Your task to perform on an android device: choose inbox layout in the gmail app Image 0: 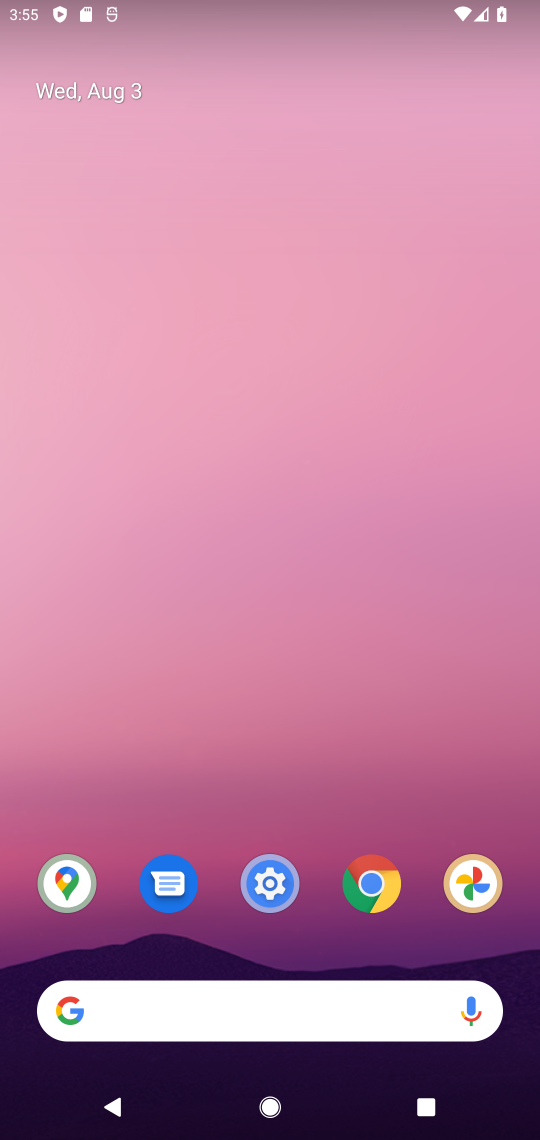
Step 0: drag from (202, 861) to (214, 423)
Your task to perform on an android device: choose inbox layout in the gmail app Image 1: 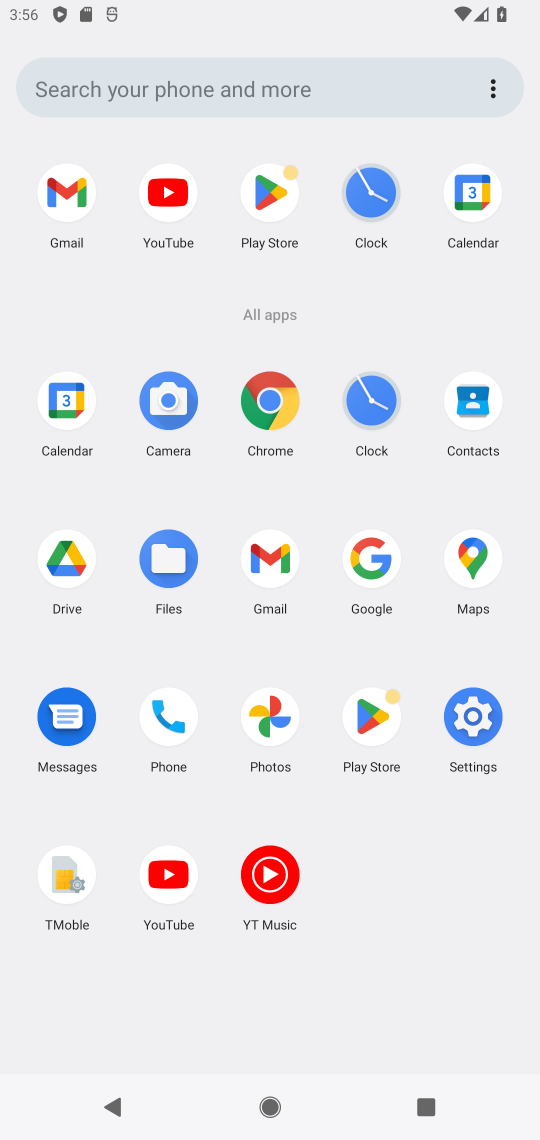
Step 1: click (277, 561)
Your task to perform on an android device: choose inbox layout in the gmail app Image 2: 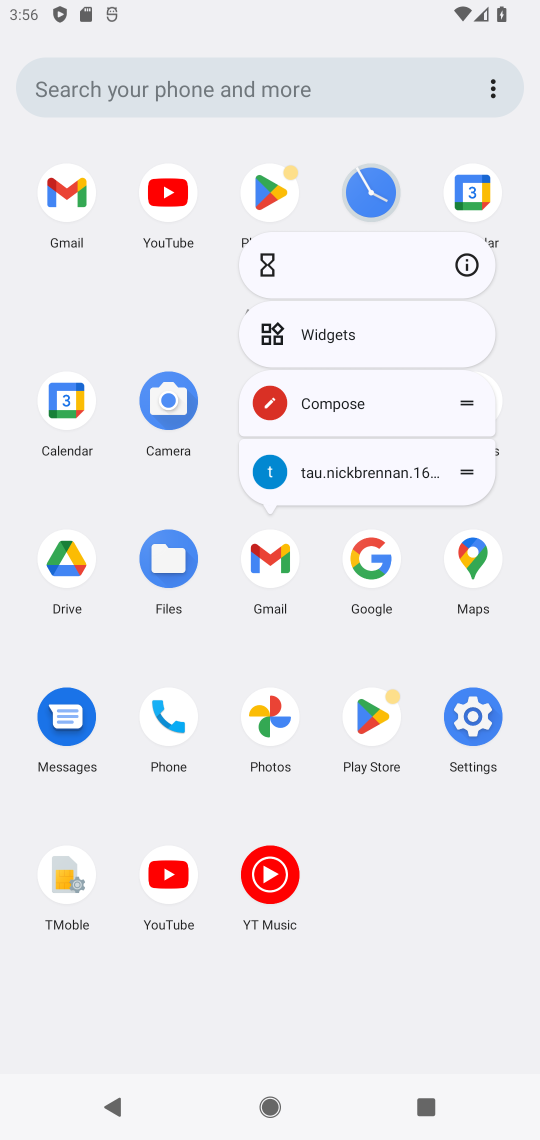
Step 2: click (264, 580)
Your task to perform on an android device: choose inbox layout in the gmail app Image 3: 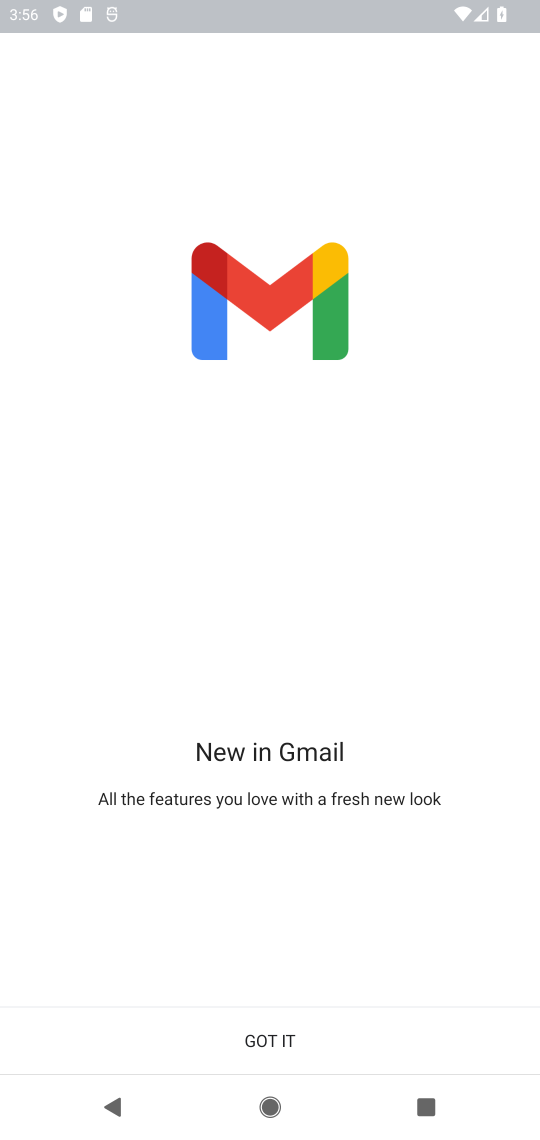
Step 3: click (289, 1038)
Your task to perform on an android device: choose inbox layout in the gmail app Image 4: 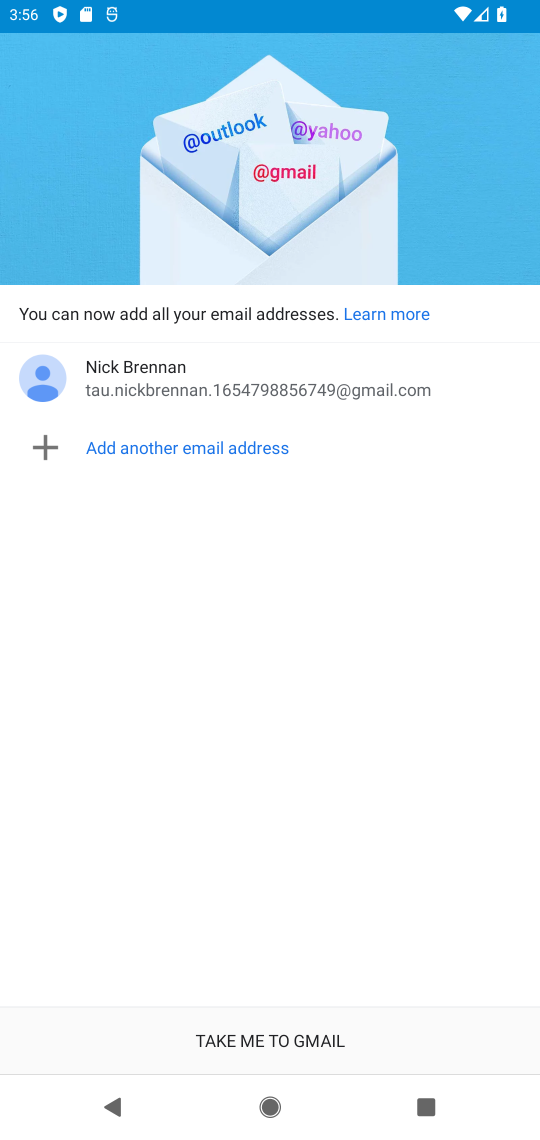
Step 4: click (262, 1033)
Your task to perform on an android device: choose inbox layout in the gmail app Image 5: 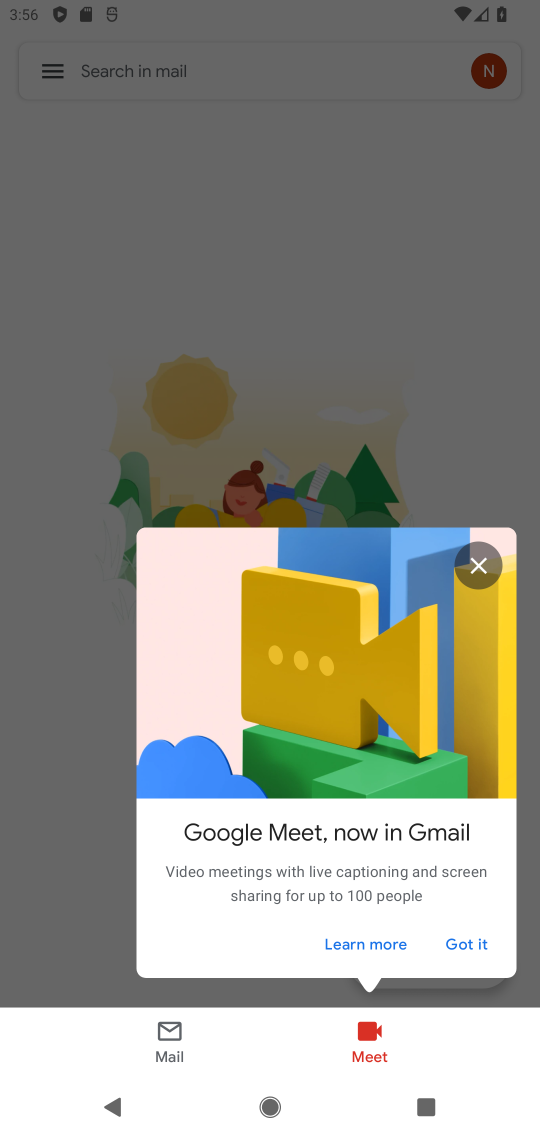
Step 5: click (473, 564)
Your task to perform on an android device: choose inbox layout in the gmail app Image 6: 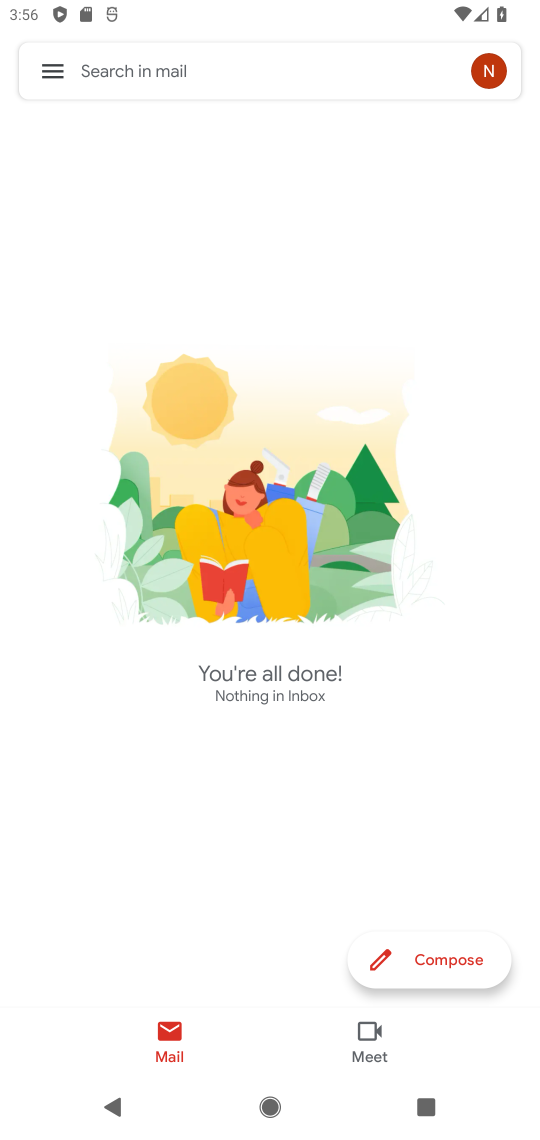
Step 6: click (58, 66)
Your task to perform on an android device: choose inbox layout in the gmail app Image 7: 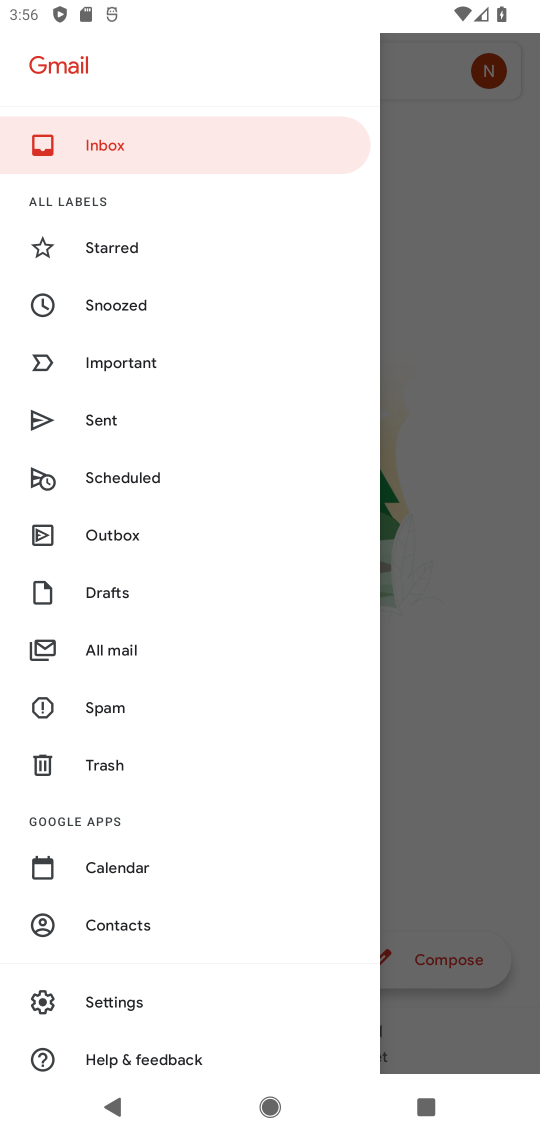
Step 7: click (155, 1007)
Your task to perform on an android device: choose inbox layout in the gmail app Image 8: 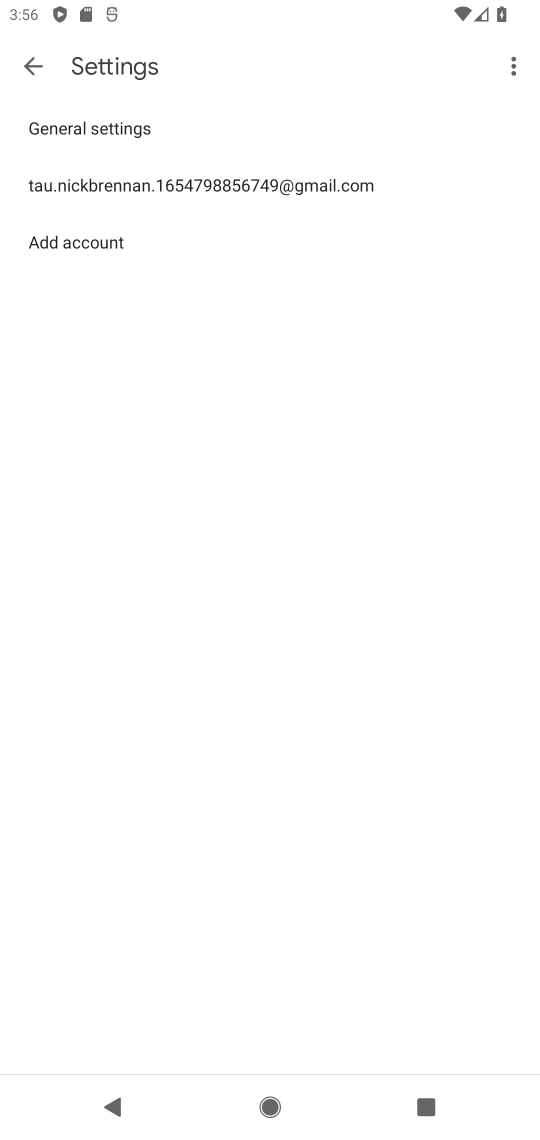
Step 8: click (200, 191)
Your task to perform on an android device: choose inbox layout in the gmail app Image 9: 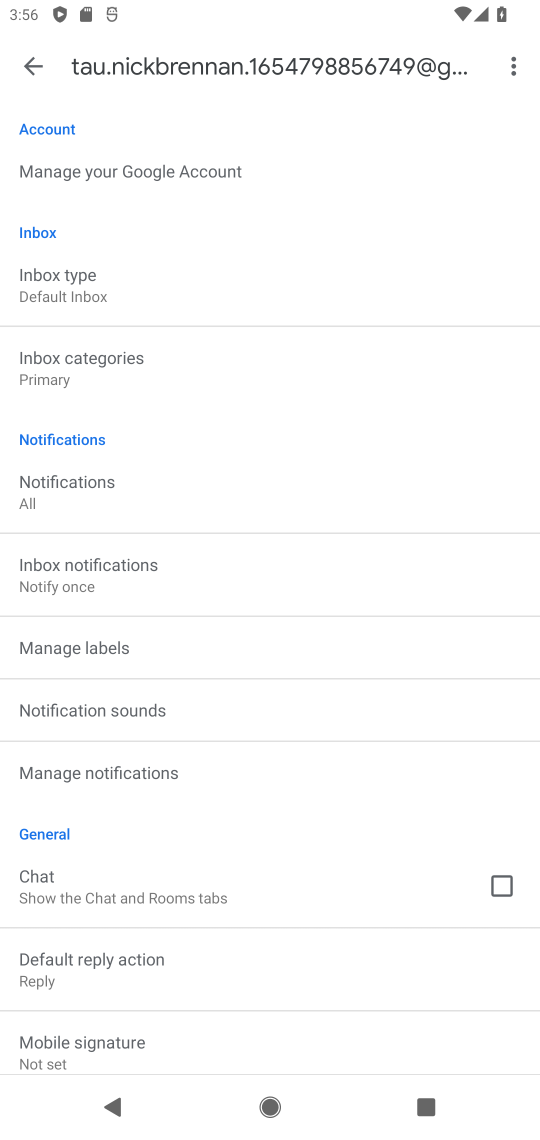
Step 9: click (78, 369)
Your task to perform on an android device: choose inbox layout in the gmail app Image 10: 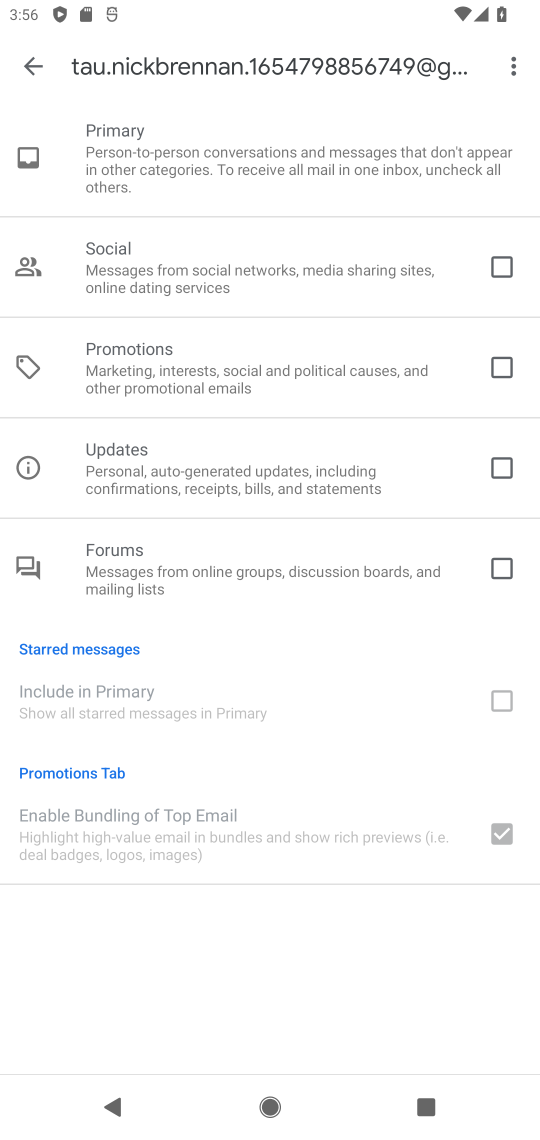
Step 10: click (32, 58)
Your task to perform on an android device: choose inbox layout in the gmail app Image 11: 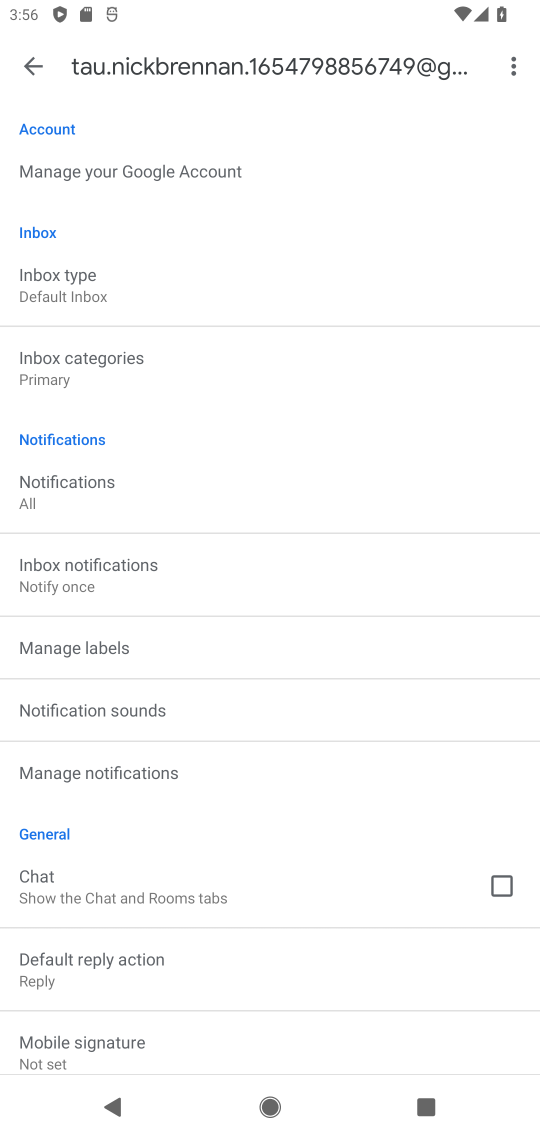
Step 11: click (86, 293)
Your task to perform on an android device: choose inbox layout in the gmail app Image 12: 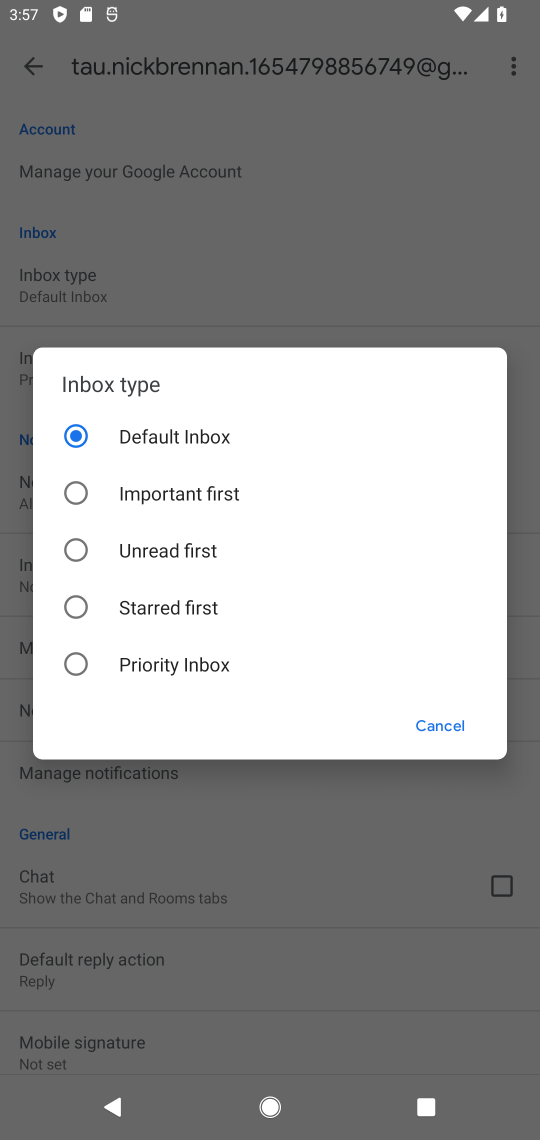
Step 12: click (158, 618)
Your task to perform on an android device: choose inbox layout in the gmail app Image 13: 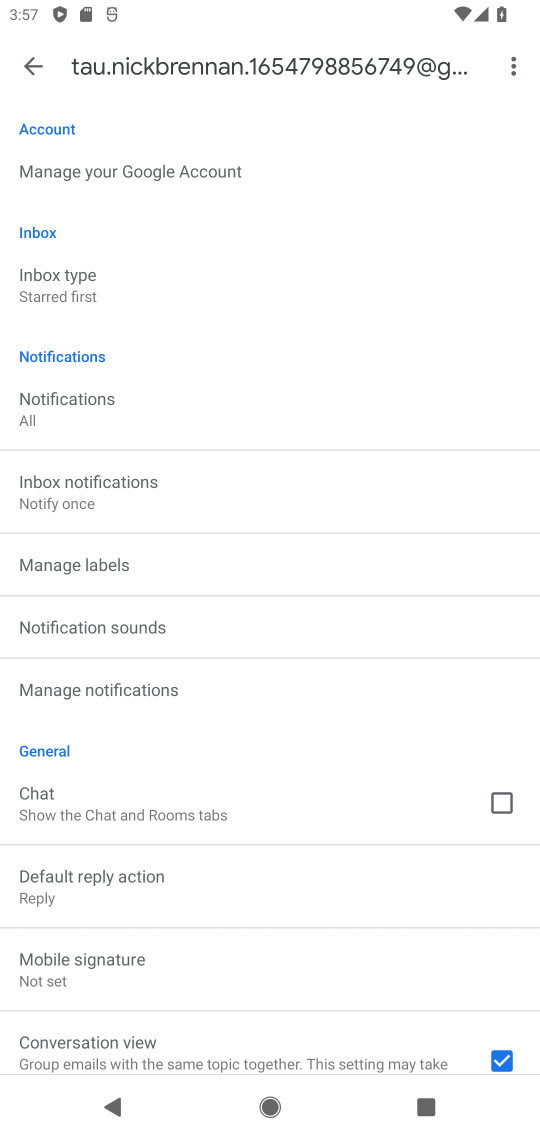
Step 13: task complete